Your task to perform on an android device: turn pop-ups on in chrome Image 0: 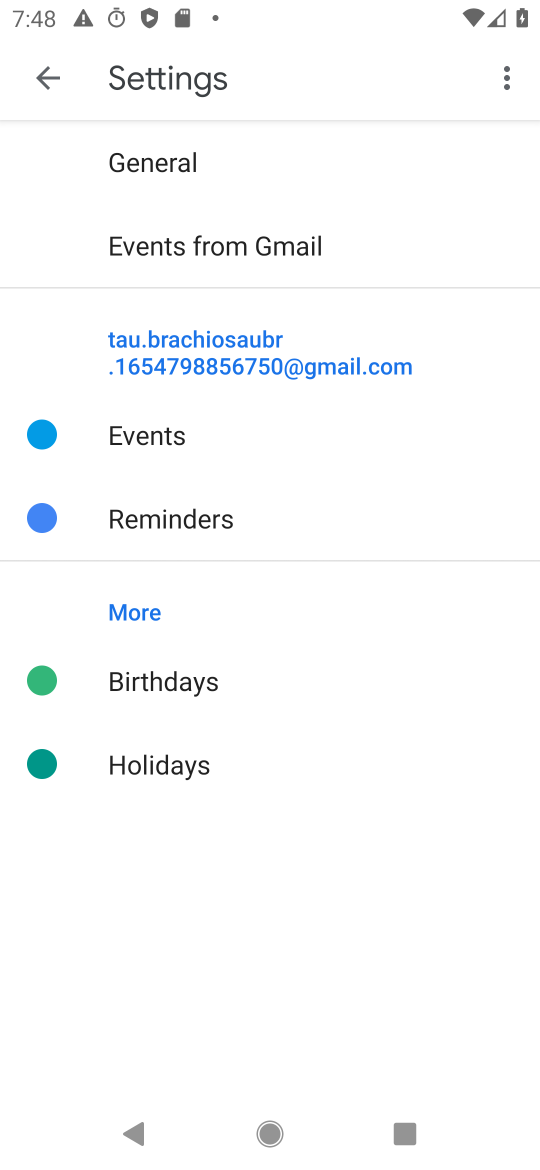
Step 0: press home button
Your task to perform on an android device: turn pop-ups on in chrome Image 1: 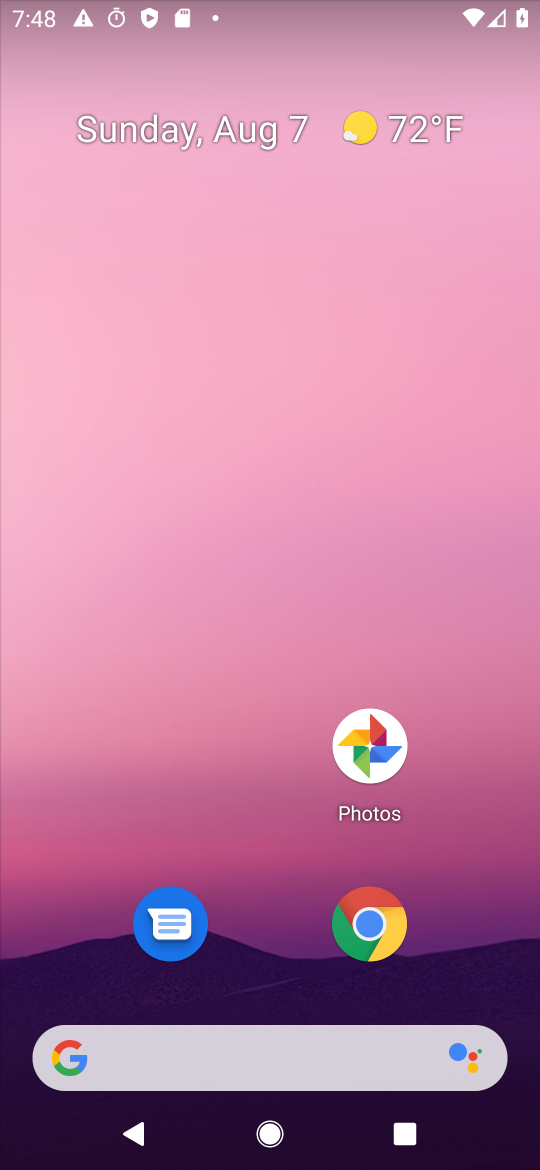
Step 1: drag from (316, 1094) to (427, 378)
Your task to perform on an android device: turn pop-ups on in chrome Image 2: 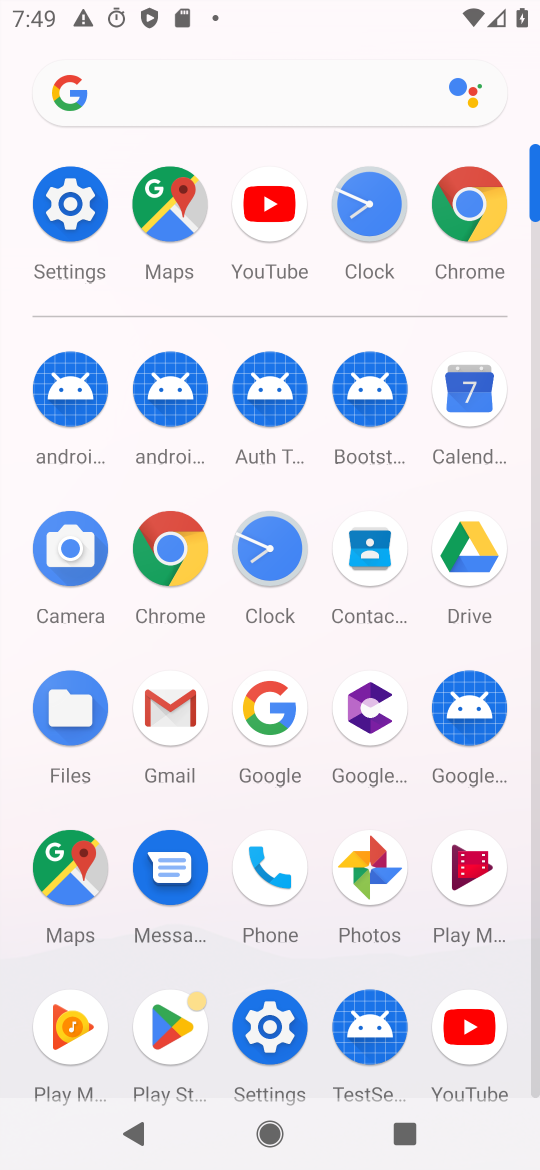
Step 2: click (464, 216)
Your task to perform on an android device: turn pop-ups on in chrome Image 3: 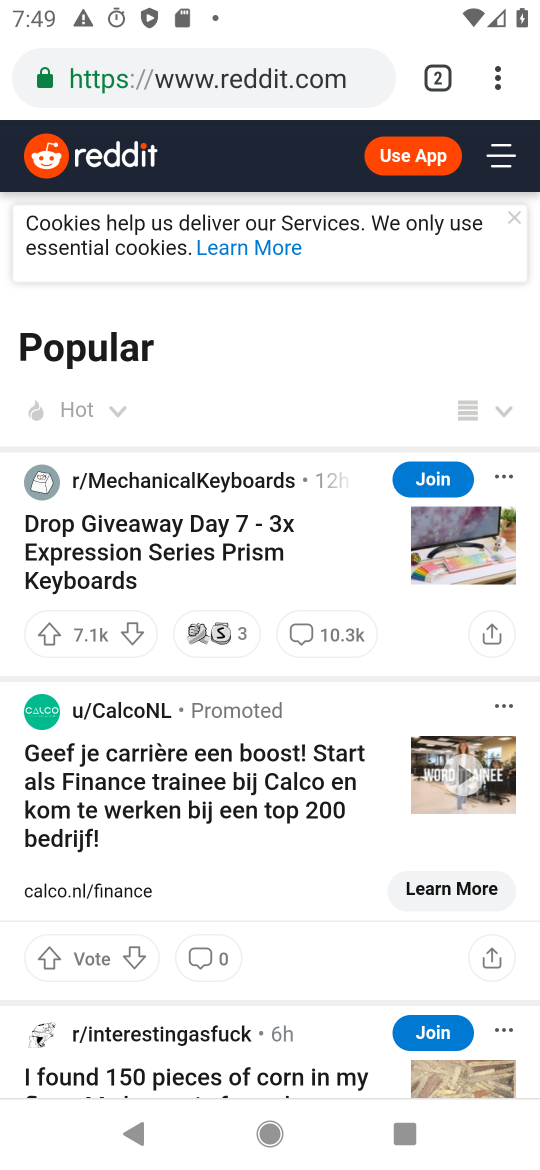
Step 3: click (484, 101)
Your task to perform on an android device: turn pop-ups on in chrome Image 4: 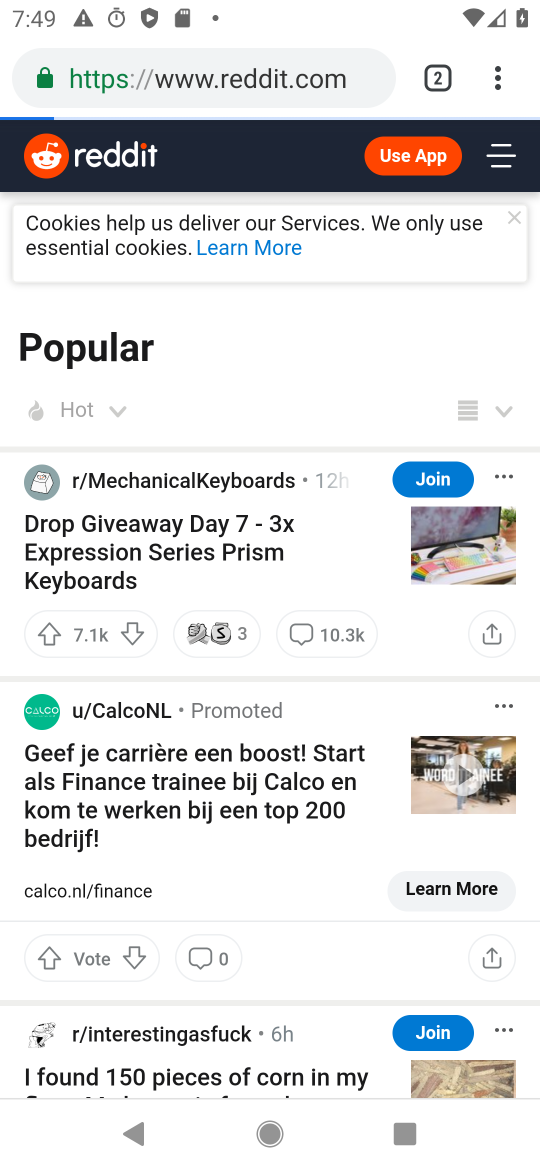
Step 4: click (489, 96)
Your task to perform on an android device: turn pop-ups on in chrome Image 5: 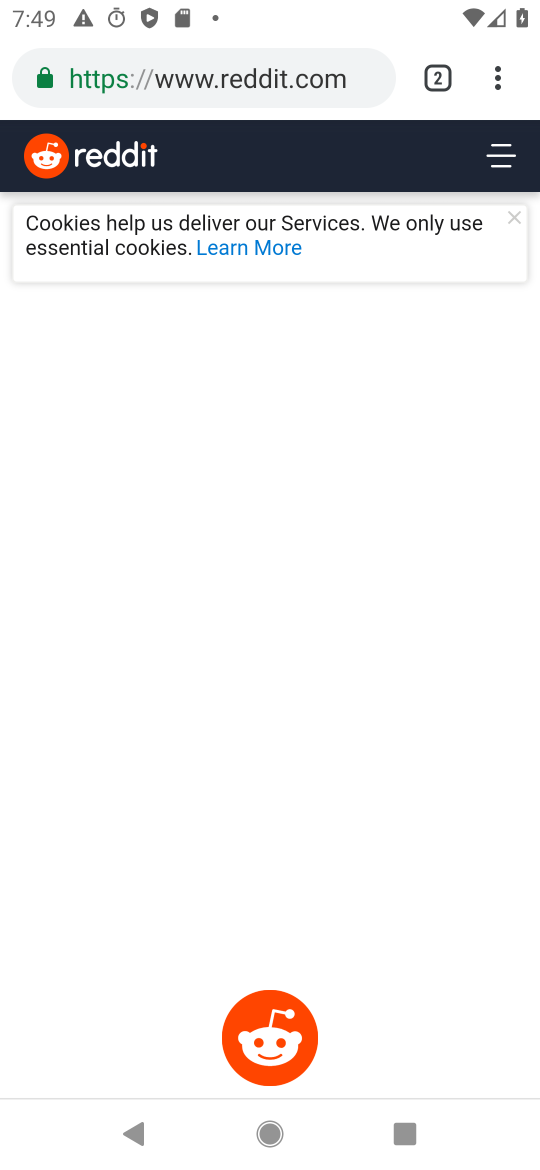
Step 5: click (472, 97)
Your task to perform on an android device: turn pop-ups on in chrome Image 6: 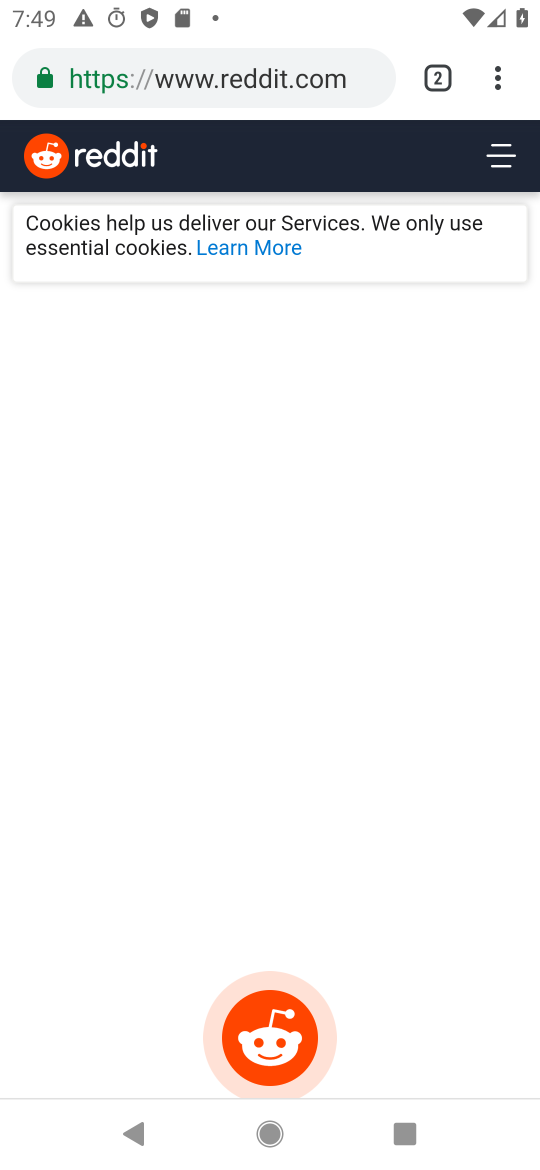
Step 6: click (503, 86)
Your task to perform on an android device: turn pop-ups on in chrome Image 7: 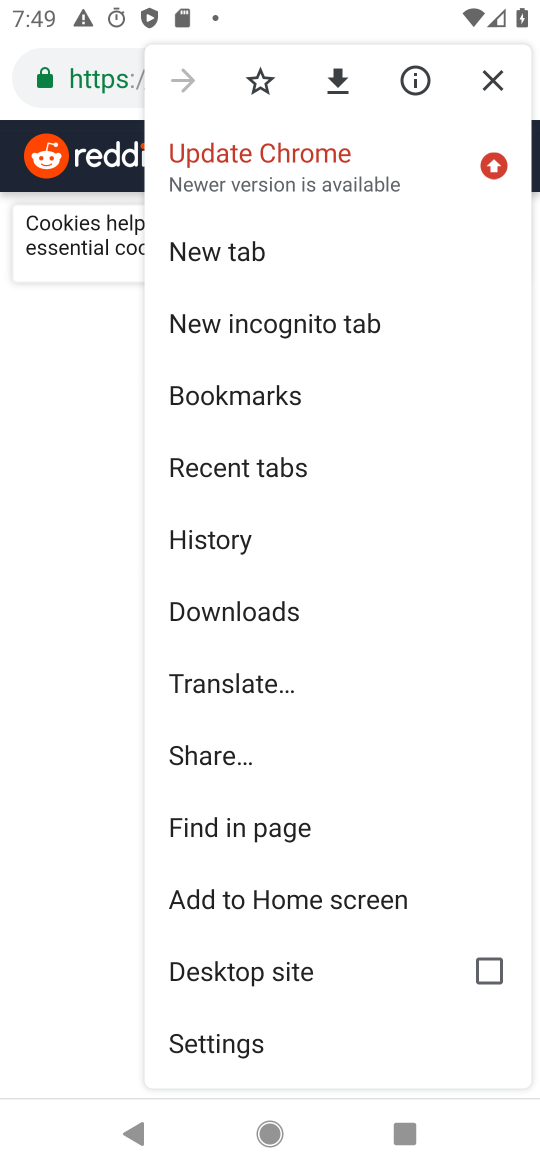
Step 7: click (202, 1033)
Your task to perform on an android device: turn pop-ups on in chrome Image 8: 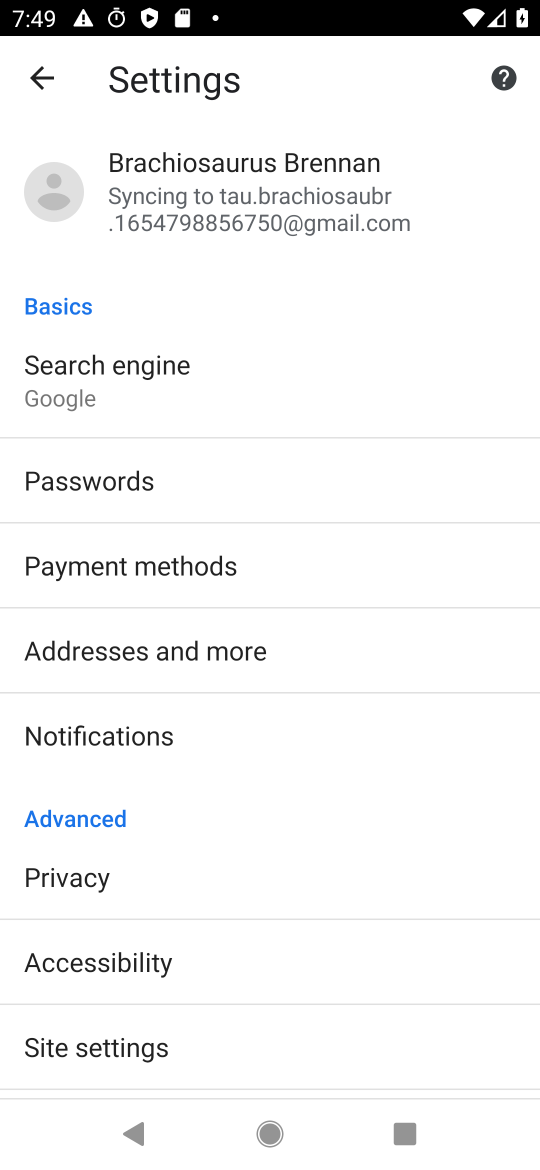
Step 8: click (155, 1050)
Your task to perform on an android device: turn pop-ups on in chrome Image 9: 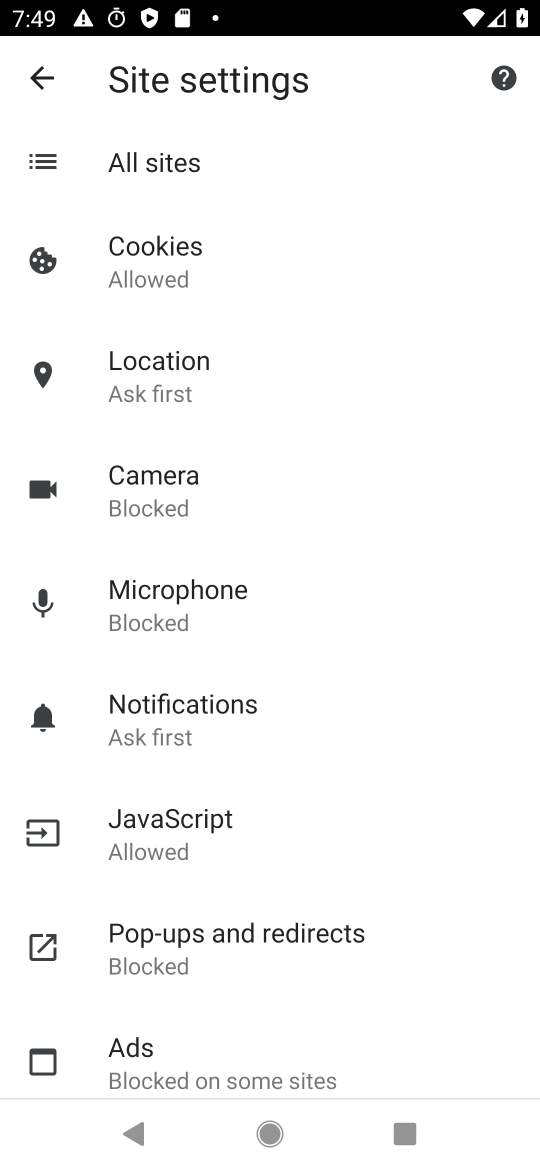
Step 9: click (195, 938)
Your task to perform on an android device: turn pop-ups on in chrome Image 10: 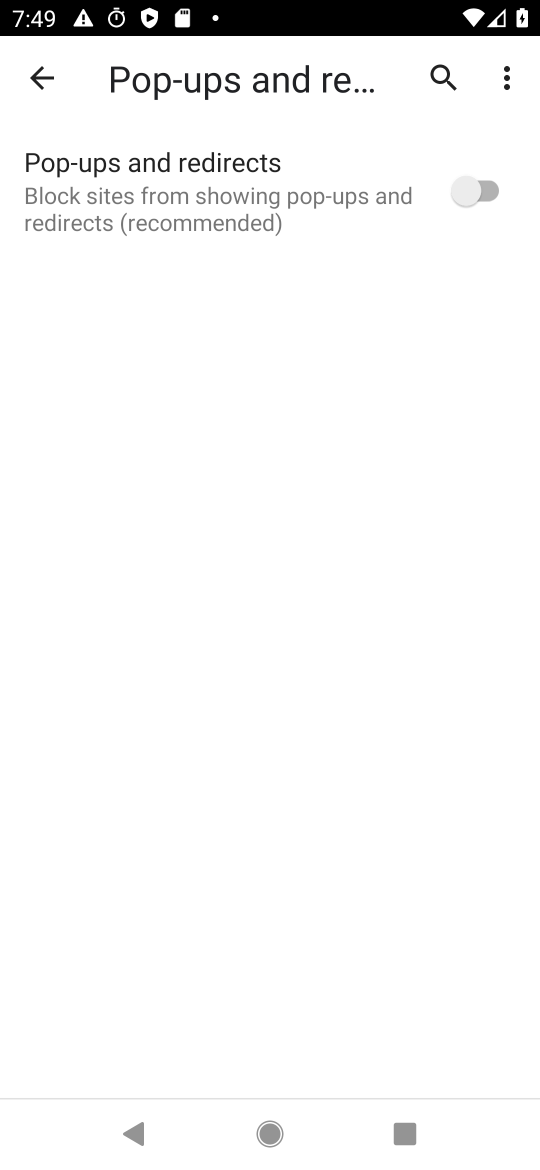
Step 10: click (486, 208)
Your task to perform on an android device: turn pop-ups on in chrome Image 11: 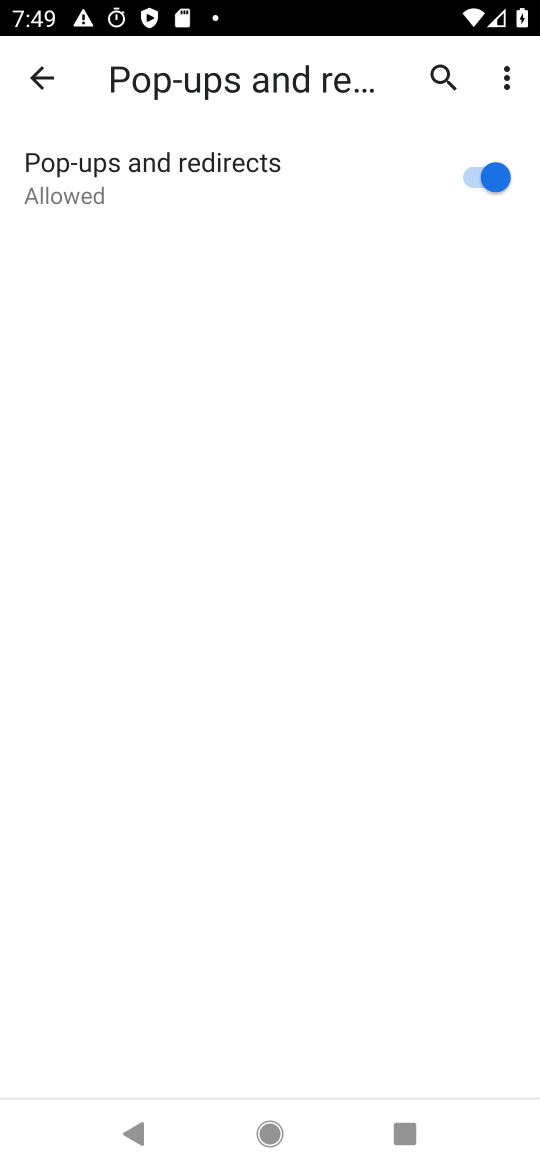
Step 11: task complete